Your task to perform on an android device: turn off data saver in the chrome app Image 0: 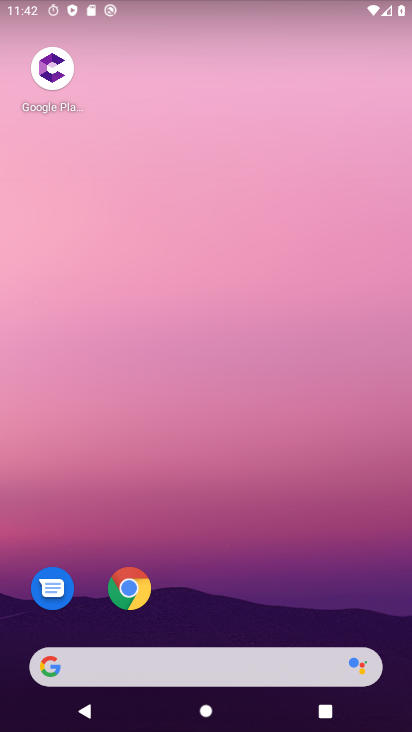
Step 0: click (118, 590)
Your task to perform on an android device: turn off data saver in the chrome app Image 1: 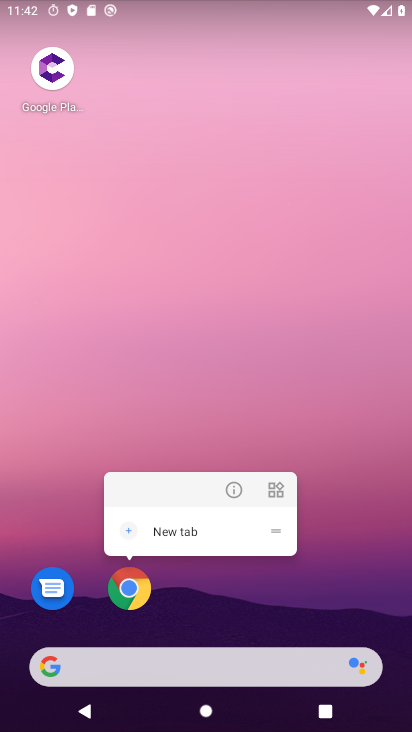
Step 1: click (127, 592)
Your task to perform on an android device: turn off data saver in the chrome app Image 2: 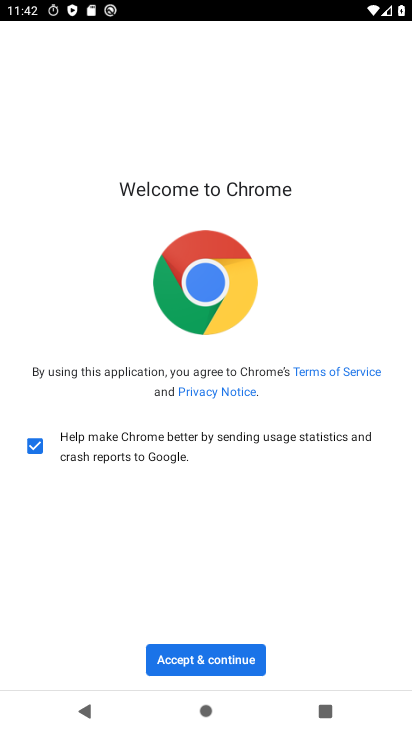
Step 2: click (198, 664)
Your task to perform on an android device: turn off data saver in the chrome app Image 3: 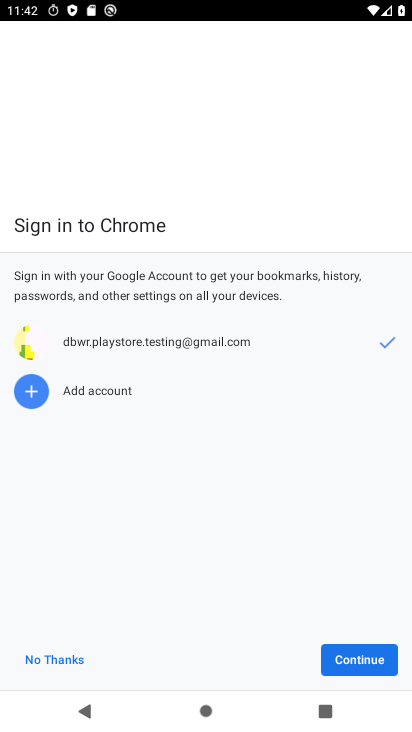
Step 3: click (345, 670)
Your task to perform on an android device: turn off data saver in the chrome app Image 4: 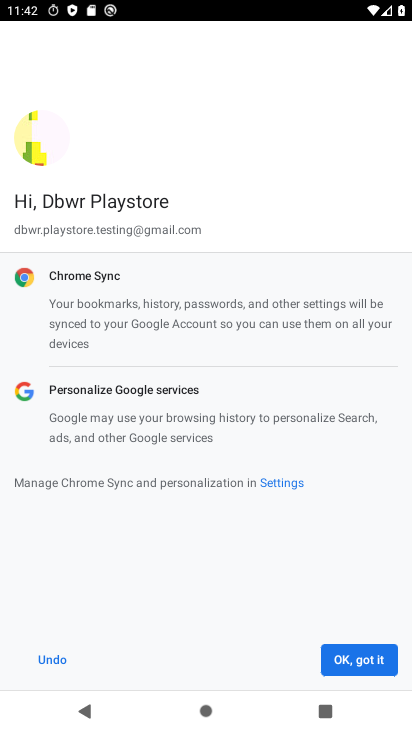
Step 4: click (345, 670)
Your task to perform on an android device: turn off data saver in the chrome app Image 5: 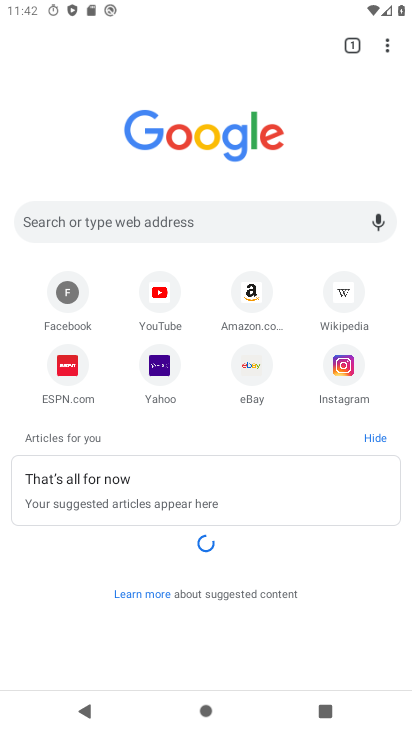
Step 5: click (385, 39)
Your task to perform on an android device: turn off data saver in the chrome app Image 6: 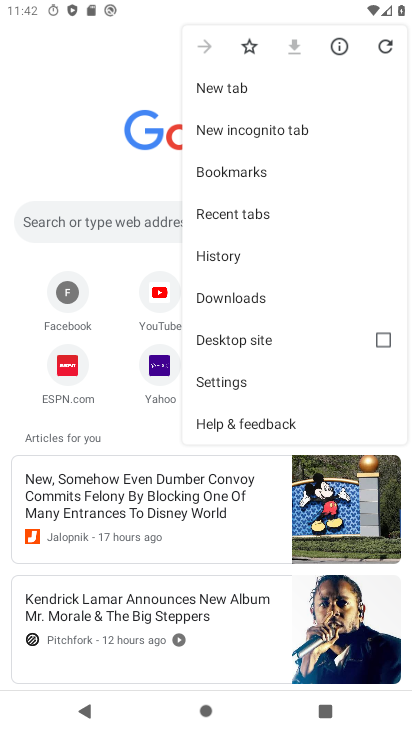
Step 6: click (234, 384)
Your task to perform on an android device: turn off data saver in the chrome app Image 7: 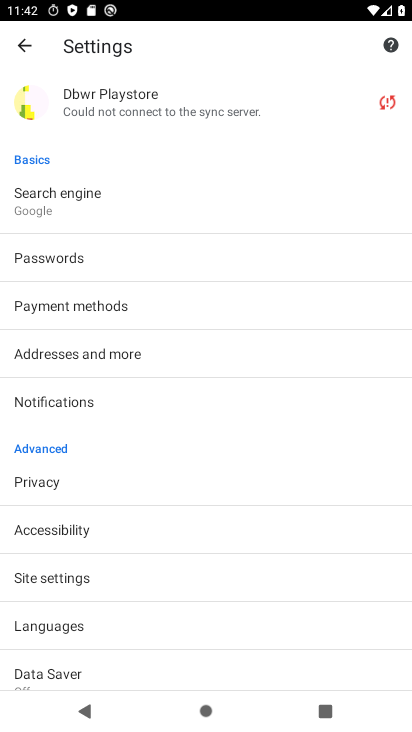
Step 7: click (98, 668)
Your task to perform on an android device: turn off data saver in the chrome app Image 8: 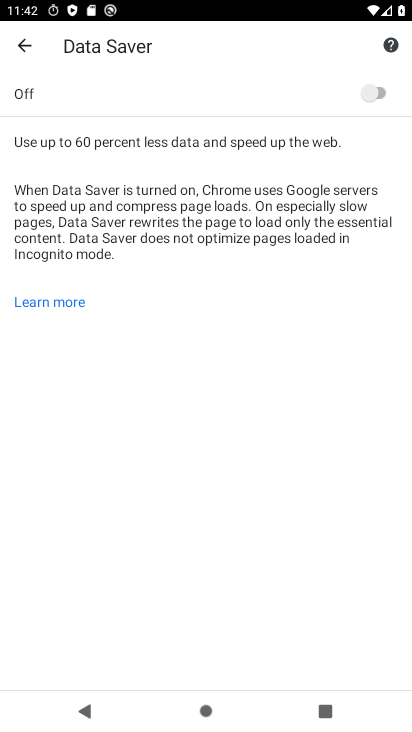
Step 8: task complete